Your task to perform on an android device: toggle pop-ups in chrome Image 0: 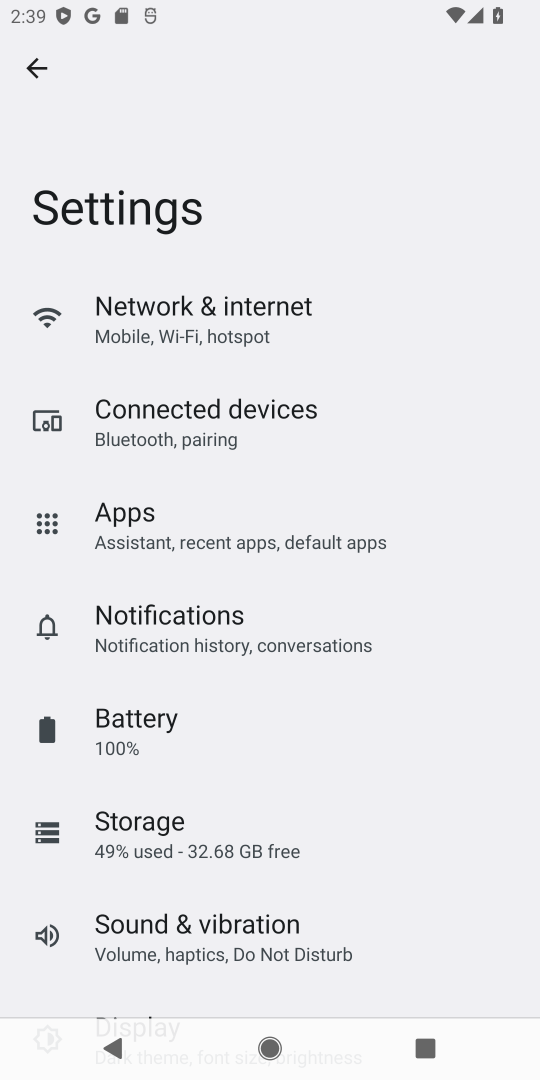
Step 0: drag from (262, 851) to (264, 285)
Your task to perform on an android device: toggle pop-ups in chrome Image 1: 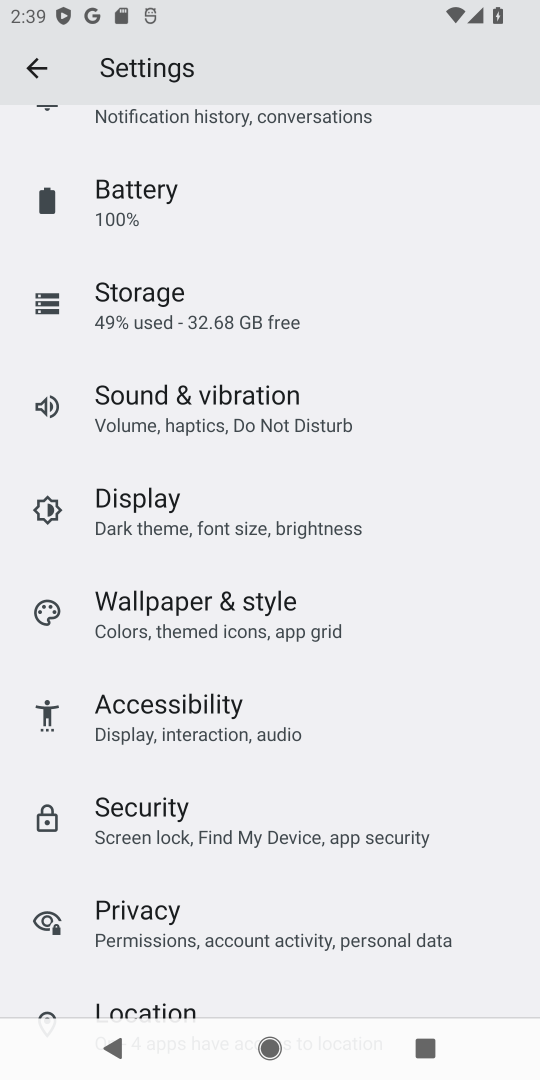
Step 1: press home button
Your task to perform on an android device: toggle pop-ups in chrome Image 2: 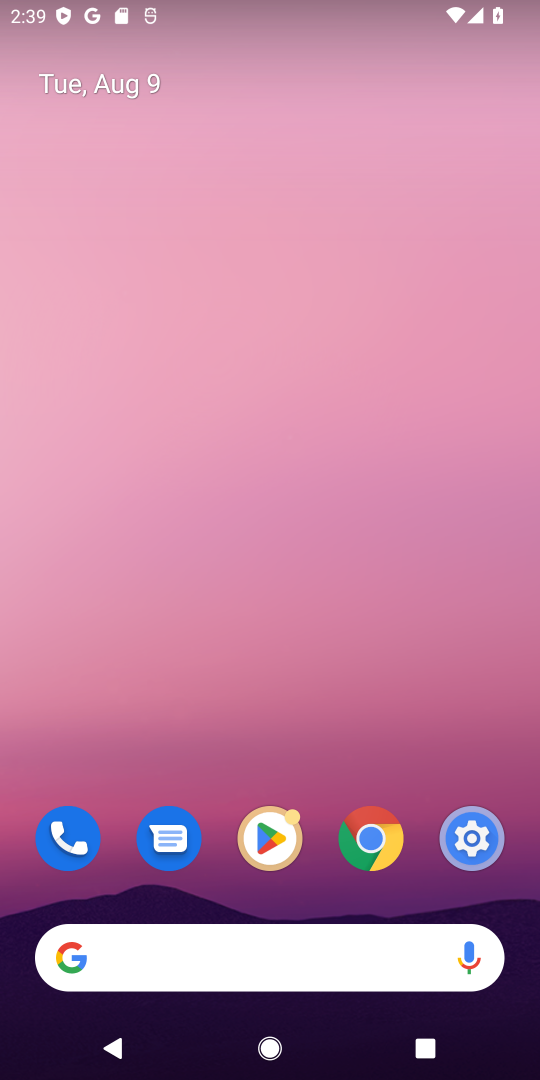
Step 2: click (365, 838)
Your task to perform on an android device: toggle pop-ups in chrome Image 3: 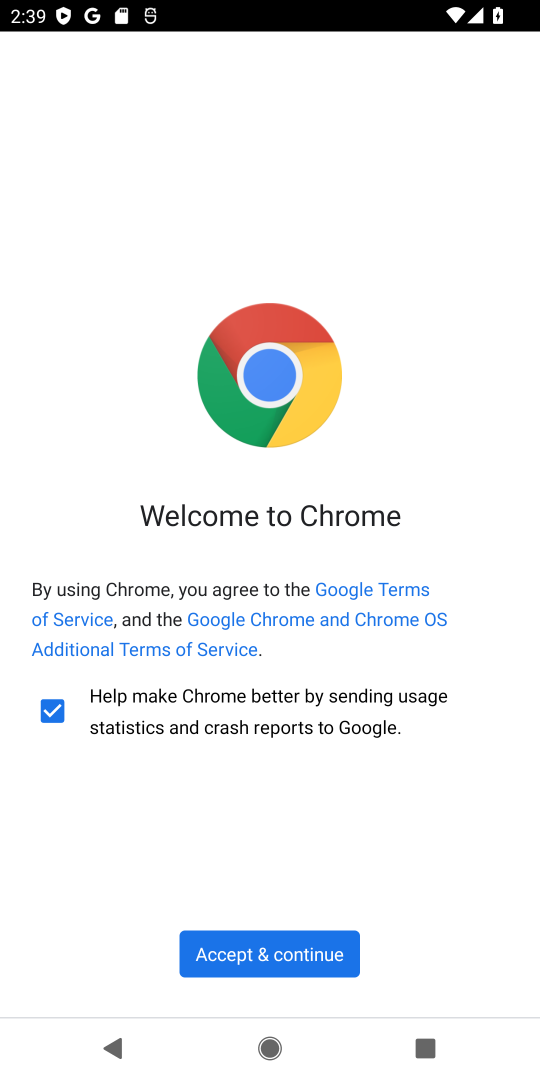
Step 3: click (275, 935)
Your task to perform on an android device: toggle pop-ups in chrome Image 4: 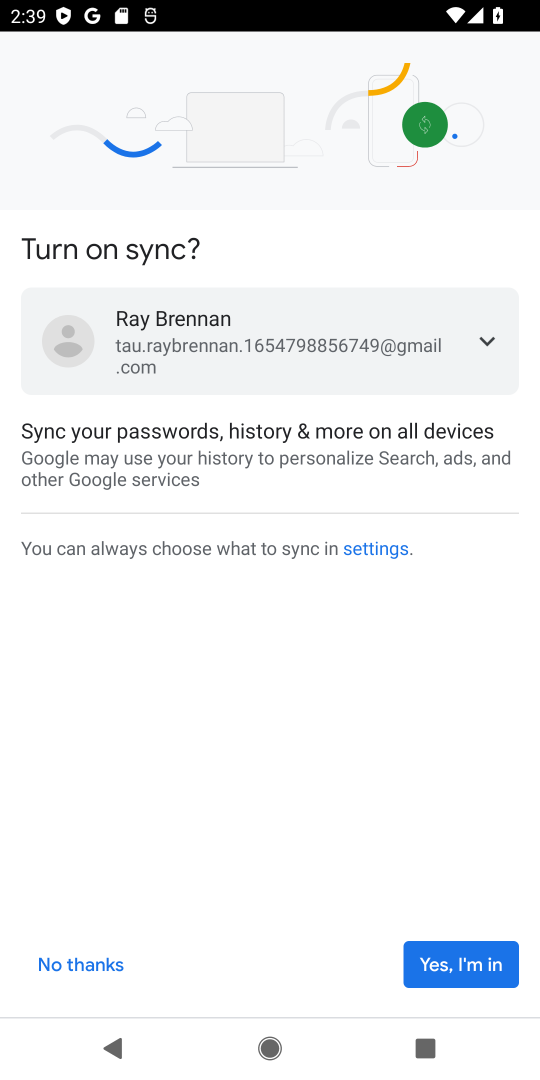
Step 4: click (481, 967)
Your task to perform on an android device: toggle pop-ups in chrome Image 5: 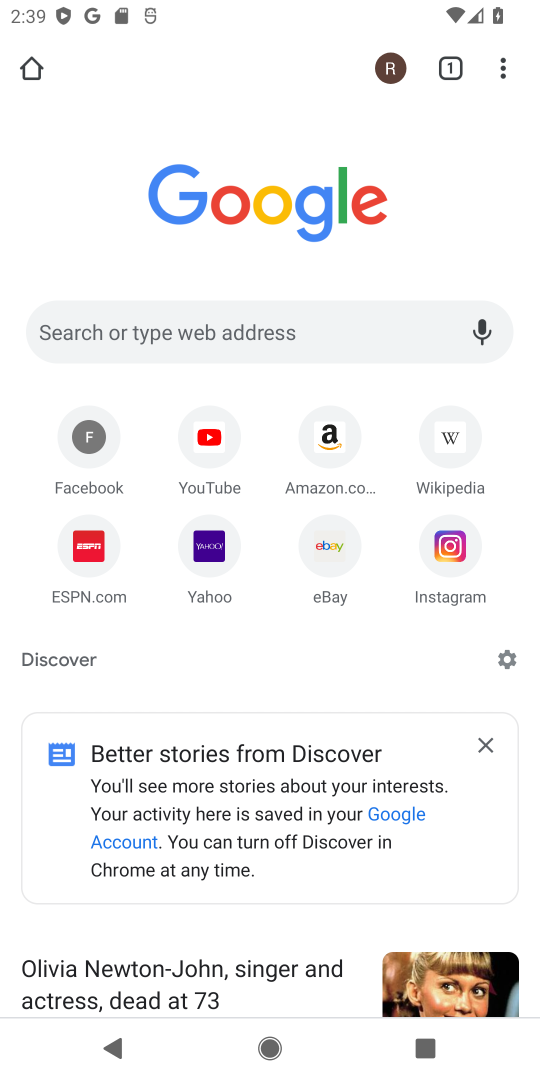
Step 5: drag from (507, 61) to (281, 617)
Your task to perform on an android device: toggle pop-ups in chrome Image 6: 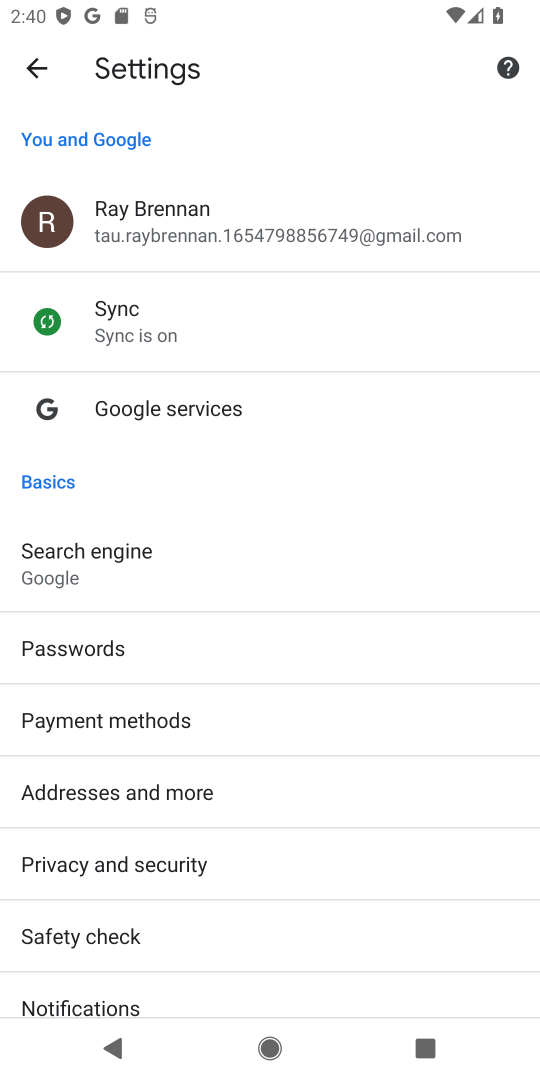
Step 6: drag from (249, 953) to (440, 362)
Your task to perform on an android device: toggle pop-ups in chrome Image 7: 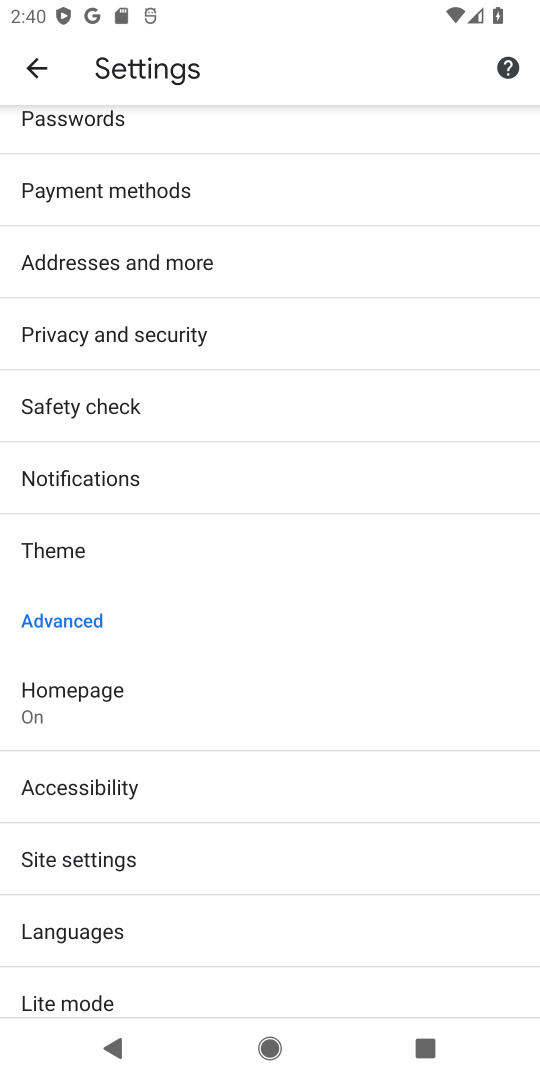
Step 7: click (133, 864)
Your task to perform on an android device: toggle pop-ups in chrome Image 8: 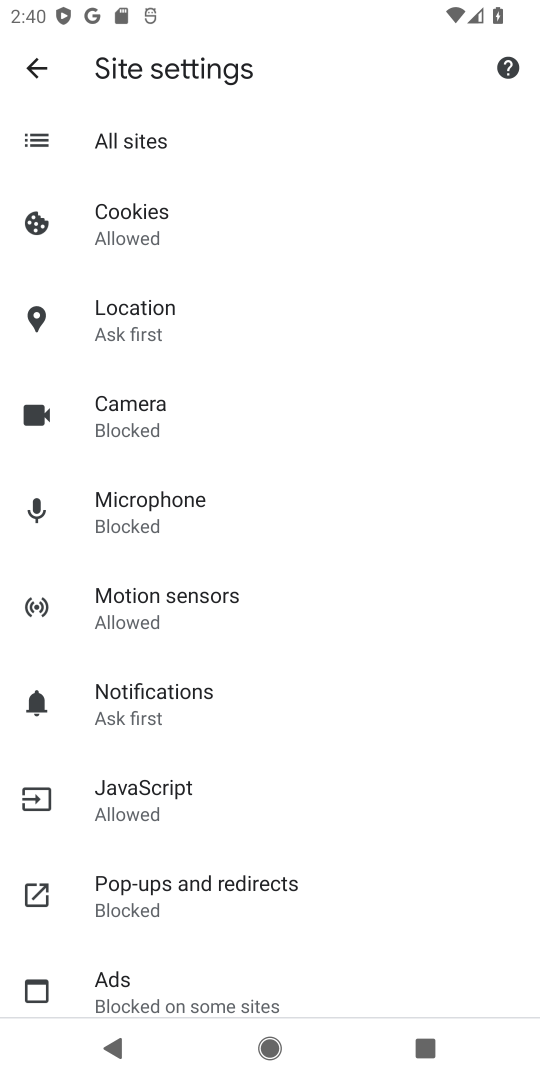
Step 8: click (171, 881)
Your task to perform on an android device: toggle pop-ups in chrome Image 9: 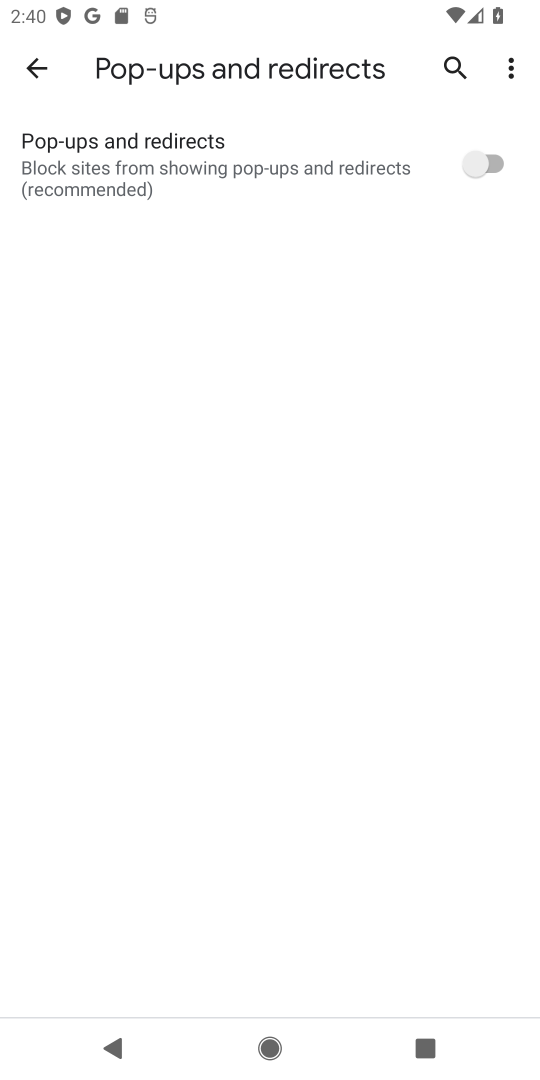
Step 9: click (476, 185)
Your task to perform on an android device: toggle pop-ups in chrome Image 10: 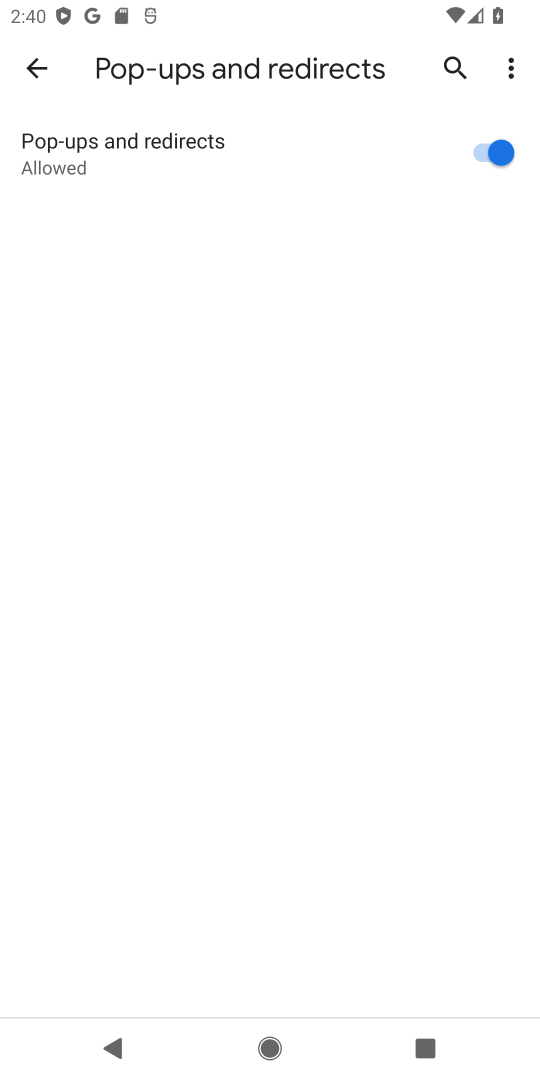
Step 10: task complete